Your task to perform on an android device: change the clock display to analog Image 0: 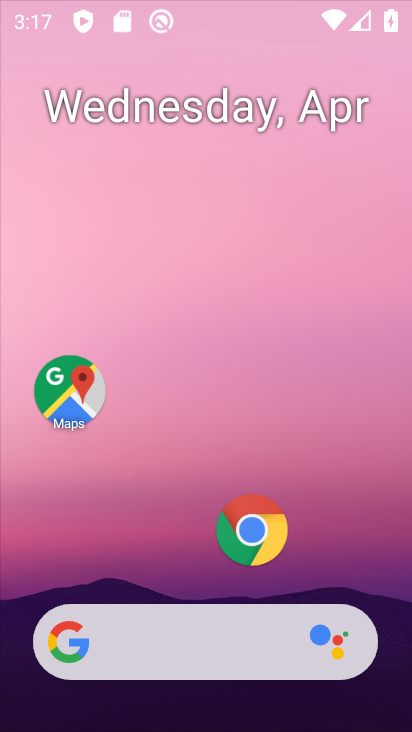
Step 0: click (84, 398)
Your task to perform on an android device: change the clock display to analog Image 1: 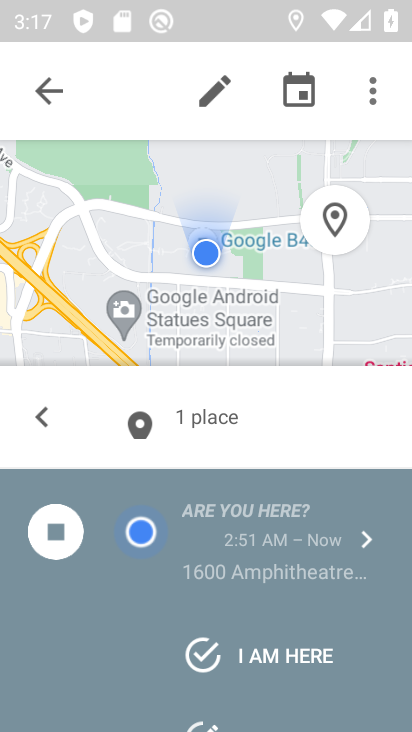
Step 1: click (45, 80)
Your task to perform on an android device: change the clock display to analog Image 2: 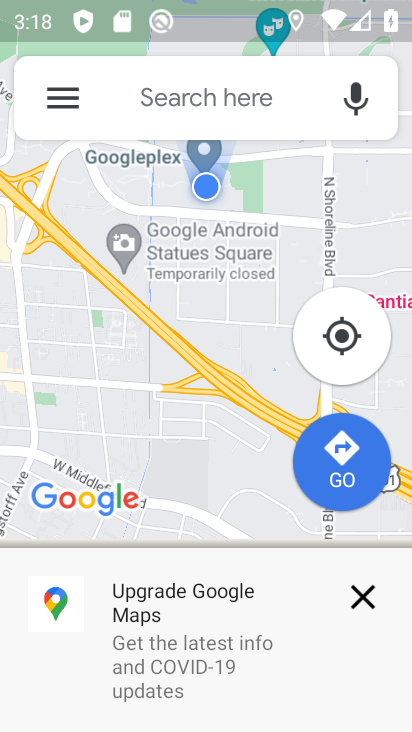
Step 2: press back button
Your task to perform on an android device: change the clock display to analog Image 3: 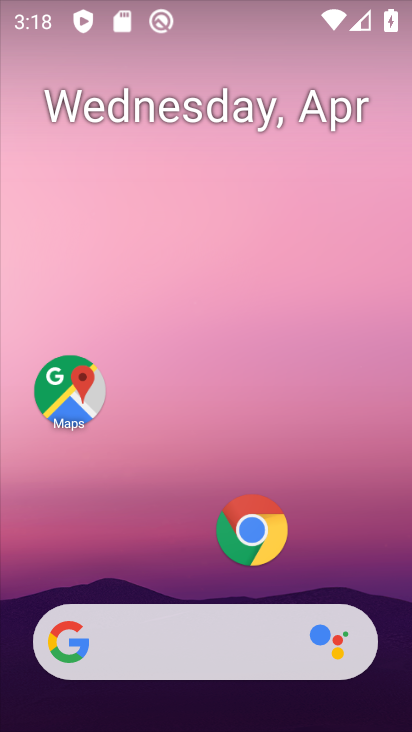
Step 3: drag from (161, 405) to (227, 47)
Your task to perform on an android device: change the clock display to analog Image 4: 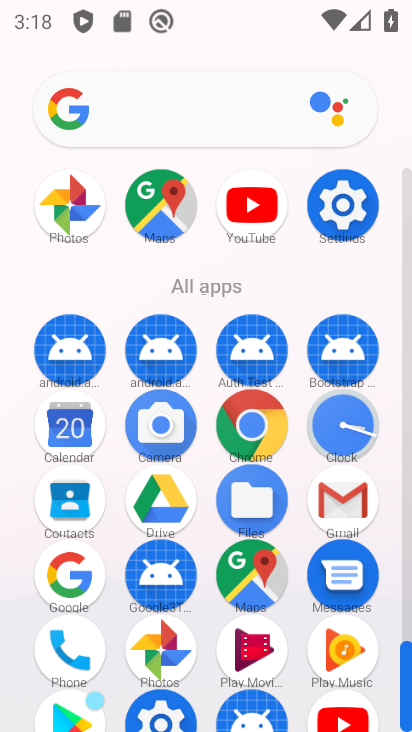
Step 4: click (324, 413)
Your task to perform on an android device: change the clock display to analog Image 5: 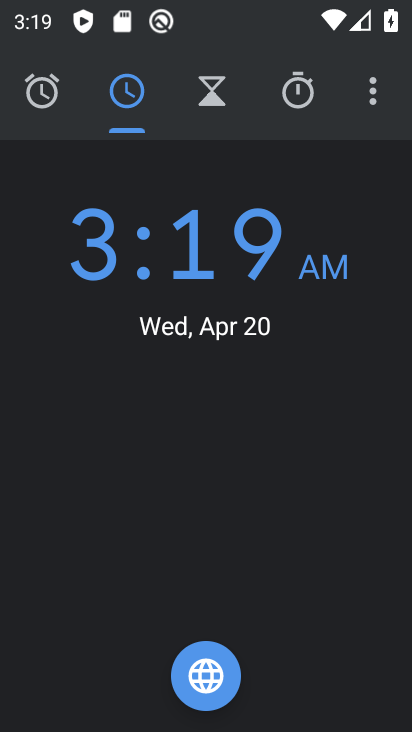
Step 5: click (372, 83)
Your task to perform on an android device: change the clock display to analog Image 6: 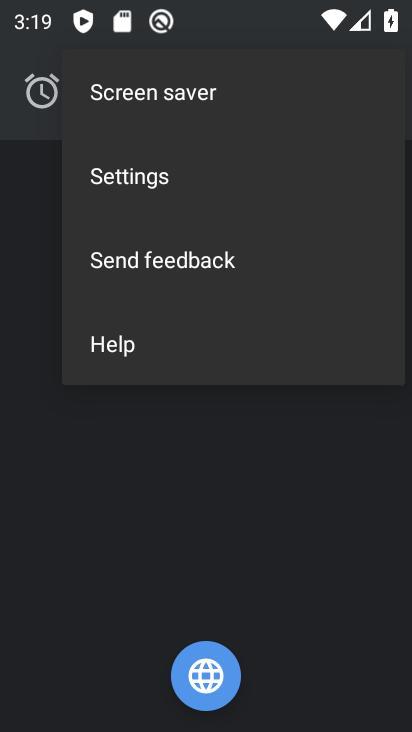
Step 6: click (159, 191)
Your task to perform on an android device: change the clock display to analog Image 7: 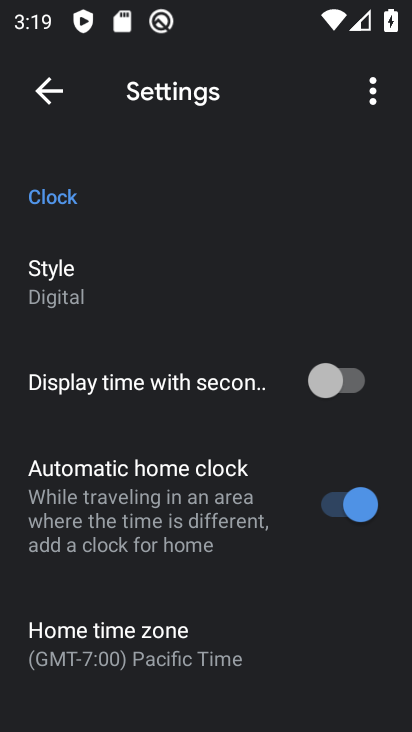
Step 7: click (85, 285)
Your task to perform on an android device: change the clock display to analog Image 8: 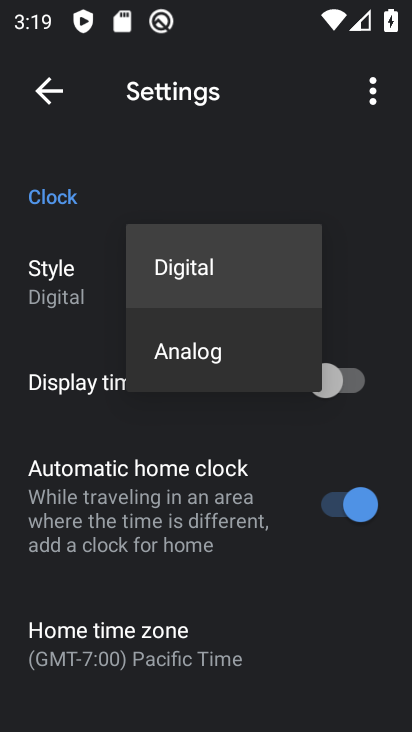
Step 8: click (201, 352)
Your task to perform on an android device: change the clock display to analog Image 9: 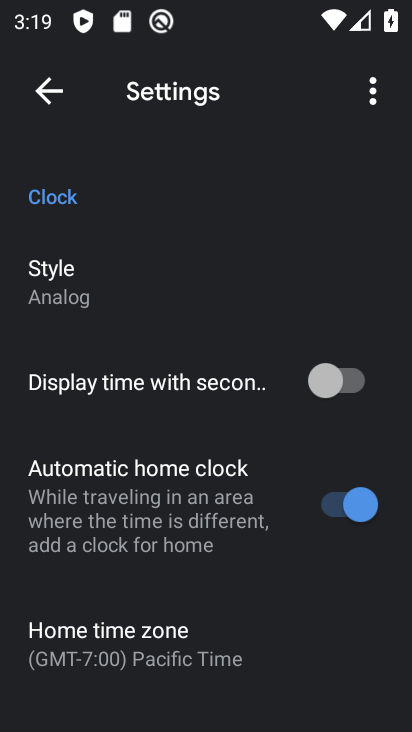
Step 9: task complete